Your task to perform on an android device: Search for pizza restaurants on Maps Image 0: 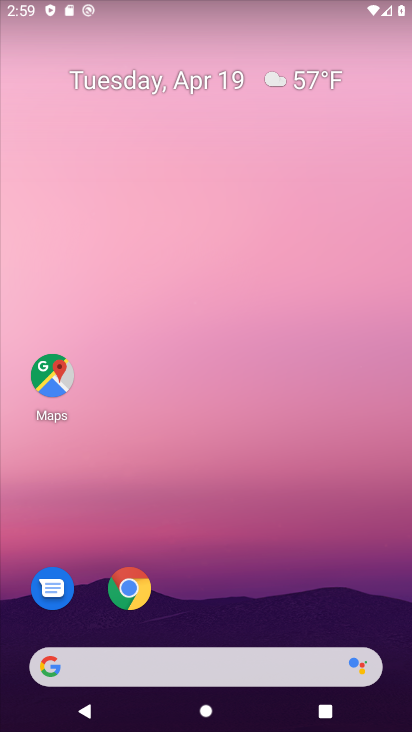
Step 0: click (57, 378)
Your task to perform on an android device: Search for pizza restaurants on Maps Image 1: 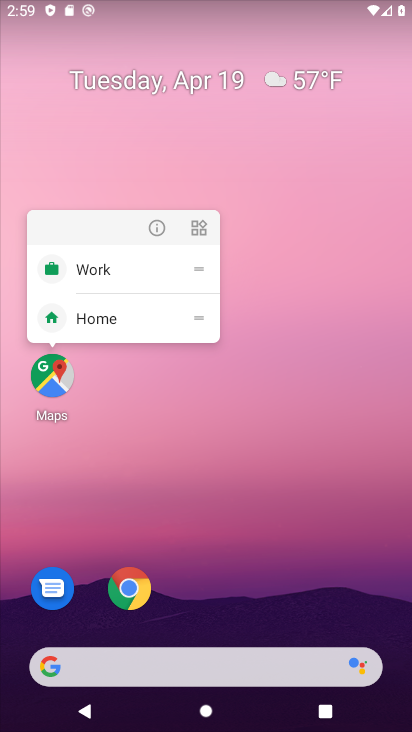
Step 1: click (75, 398)
Your task to perform on an android device: Search for pizza restaurants on Maps Image 2: 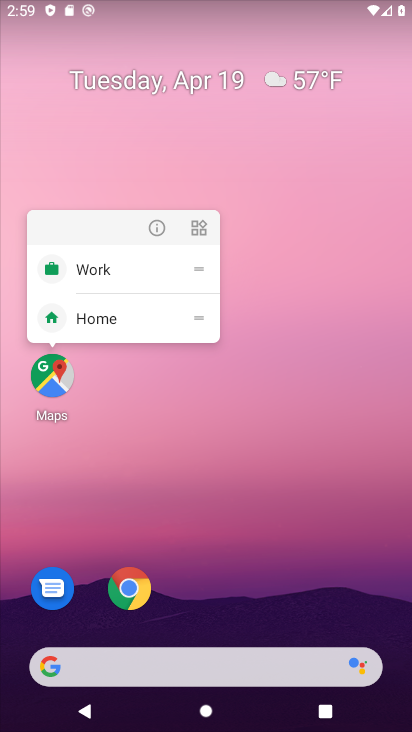
Step 2: click (57, 381)
Your task to perform on an android device: Search for pizza restaurants on Maps Image 3: 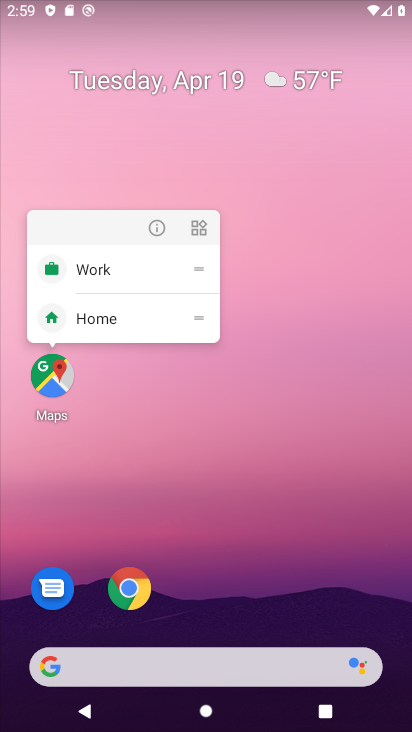
Step 3: drag from (226, 601) to (302, 111)
Your task to perform on an android device: Search for pizza restaurants on Maps Image 4: 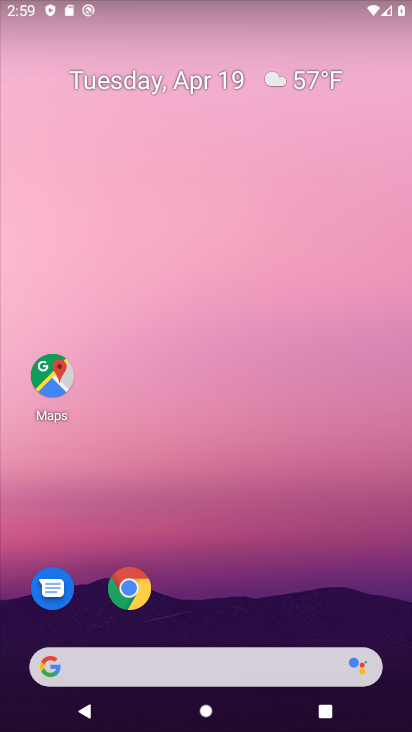
Step 4: drag from (186, 627) to (269, 138)
Your task to perform on an android device: Search for pizza restaurants on Maps Image 5: 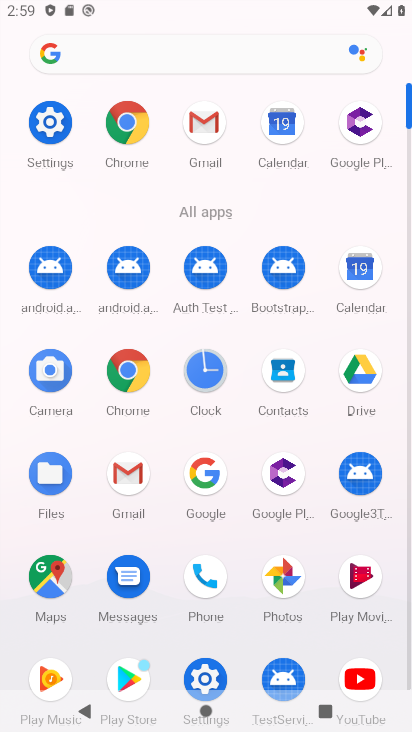
Step 5: click (68, 575)
Your task to perform on an android device: Search for pizza restaurants on Maps Image 6: 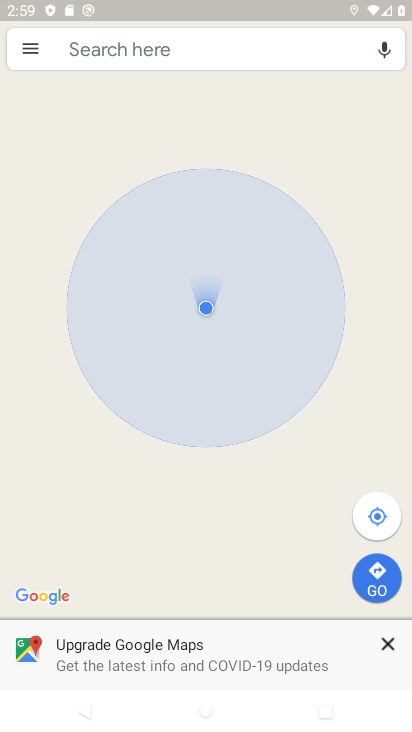
Step 6: click (389, 644)
Your task to perform on an android device: Search for pizza restaurants on Maps Image 7: 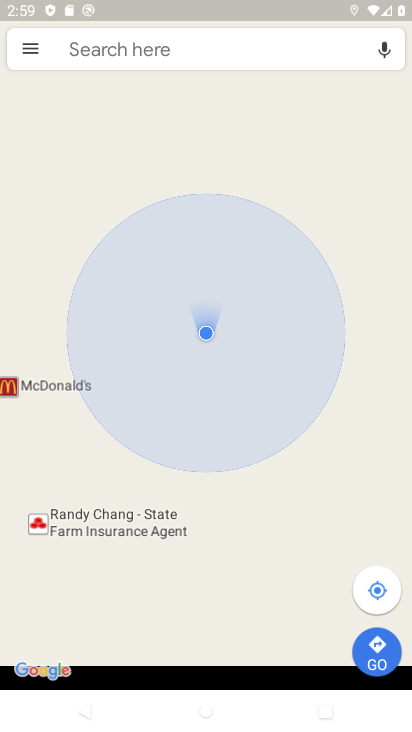
Step 7: click (187, 54)
Your task to perform on an android device: Search for pizza restaurants on Maps Image 8: 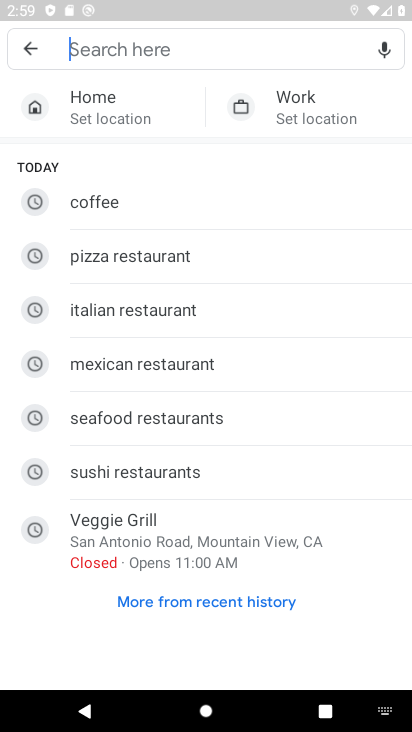
Step 8: type "Pizza restaurants"
Your task to perform on an android device: Search for pizza restaurants on Maps Image 9: 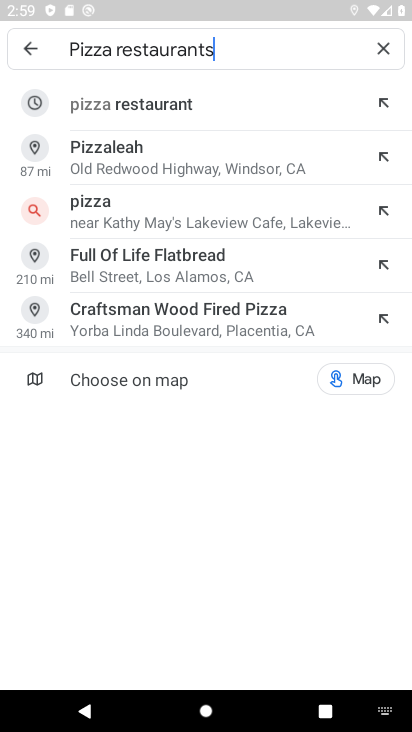
Step 9: click (180, 113)
Your task to perform on an android device: Search for pizza restaurants on Maps Image 10: 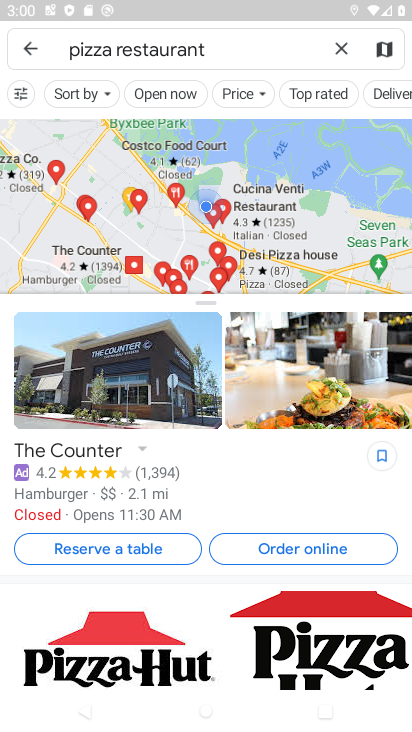
Step 10: task complete